Your task to perform on an android device: visit the assistant section in the google photos Image 0: 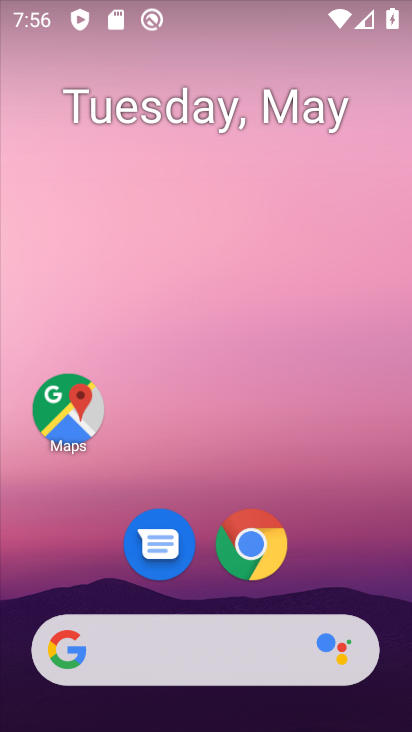
Step 0: drag from (260, 448) to (188, 77)
Your task to perform on an android device: visit the assistant section in the google photos Image 1: 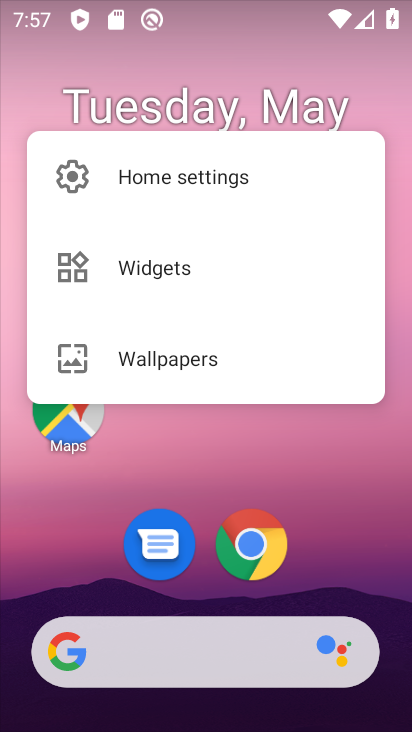
Step 1: click (318, 437)
Your task to perform on an android device: visit the assistant section in the google photos Image 2: 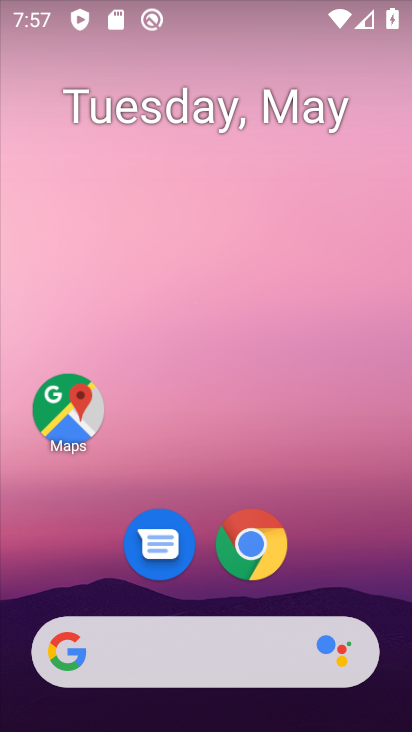
Step 2: drag from (330, 465) to (287, 61)
Your task to perform on an android device: visit the assistant section in the google photos Image 3: 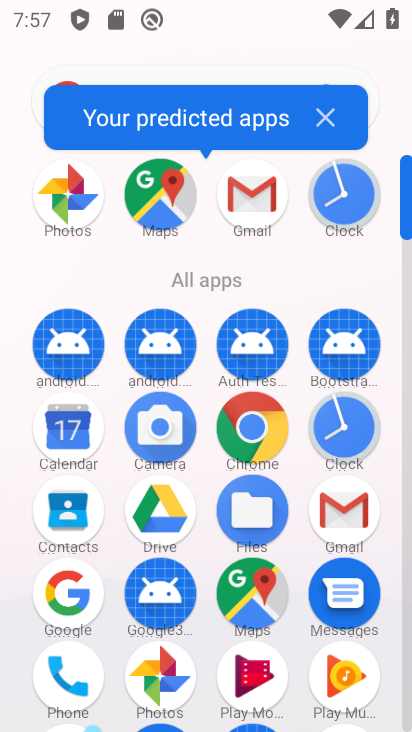
Step 3: click (61, 206)
Your task to perform on an android device: visit the assistant section in the google photos Image 4: 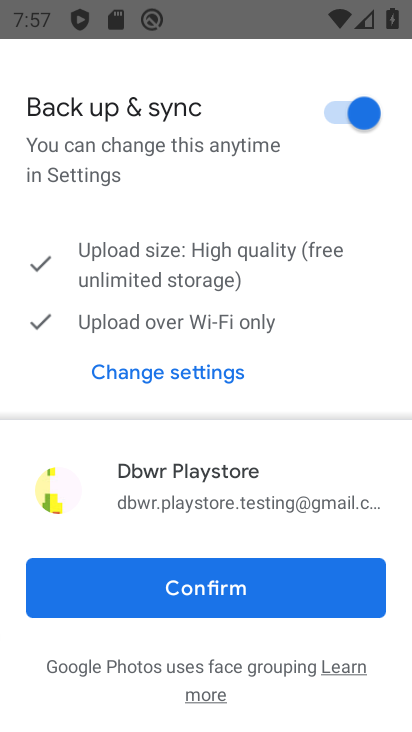
Step 4: click (258, 654)
Your task to perform on an android device: visit the assistant section in the google photos Image 5: 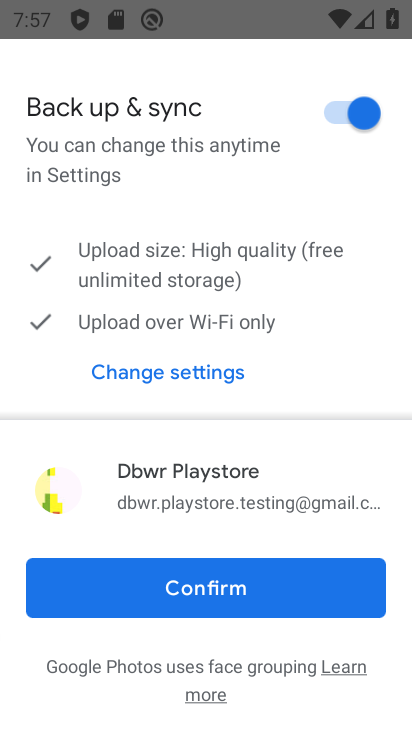
Step 5: click (252, 587)
Your task to perform on an android device: visit the assistant section in the google photos Image 6: 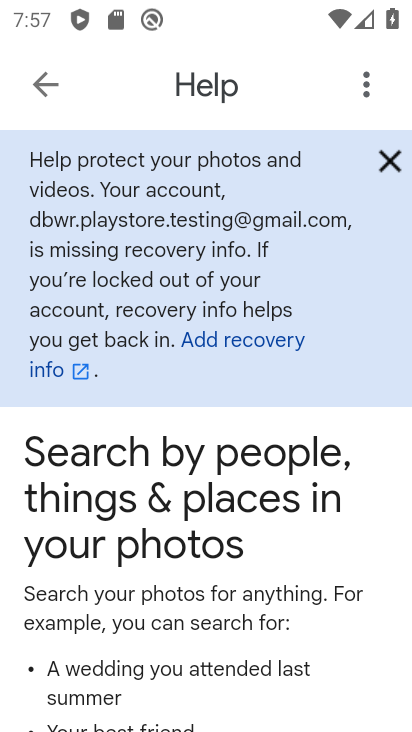
Step 6: click (42, 82)
Your task to perform on an android device: visit the assistant section in the google photos Image 7: 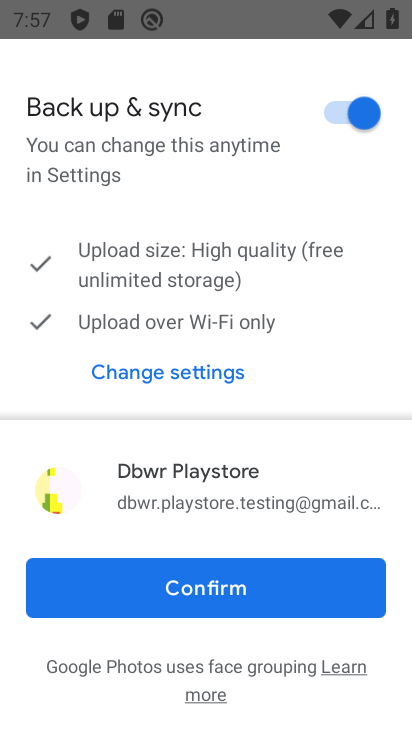
Step 7: click (195, 584)
Your task to perform on an android device: visit the assistant section in the google photos Image 8: 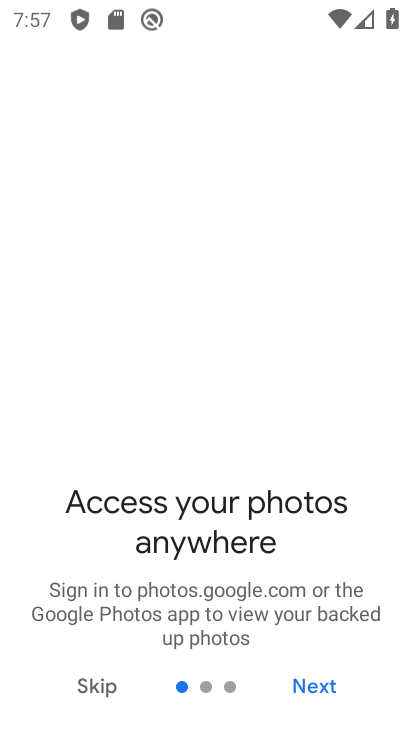
Step 8: click (301, 684)
Your task to perform on an android device: visit the assistant section in the google photos Image 9: 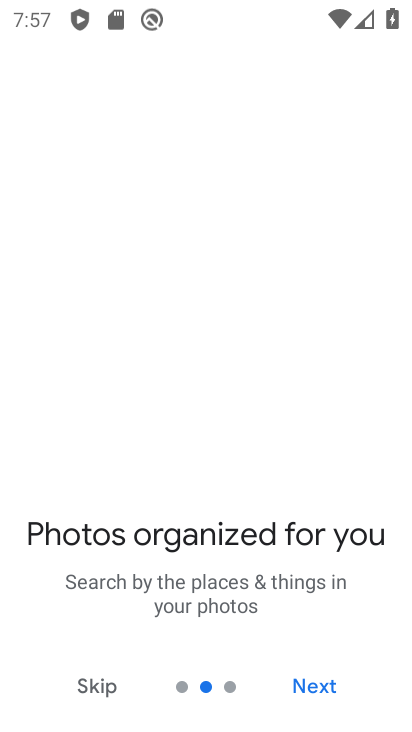
Step 9: click (301, 684)
Your task to perform on an android device: visit the assistant section in the google photos Image 10: 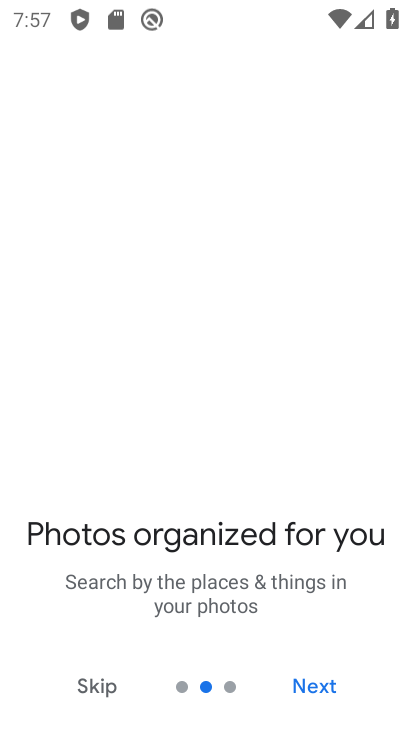
Step 10: click (301, 684)
Your task to perform on an android device: visit the assistant section in the google photos Image 11: 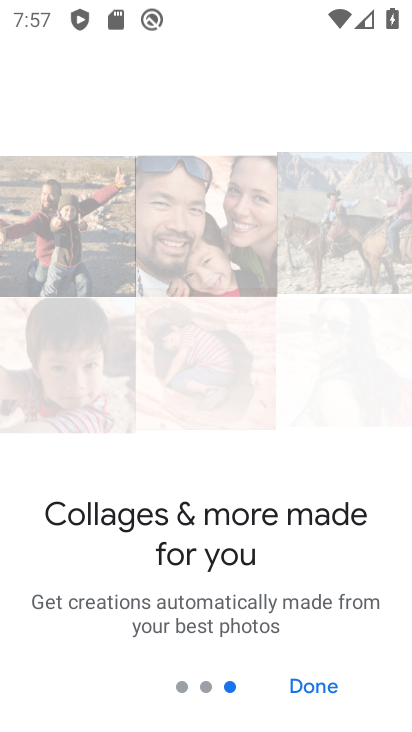
Step 11: click (301, 684)
Your task to perform on an android device: visit the assistant section in the google photos Image 12: 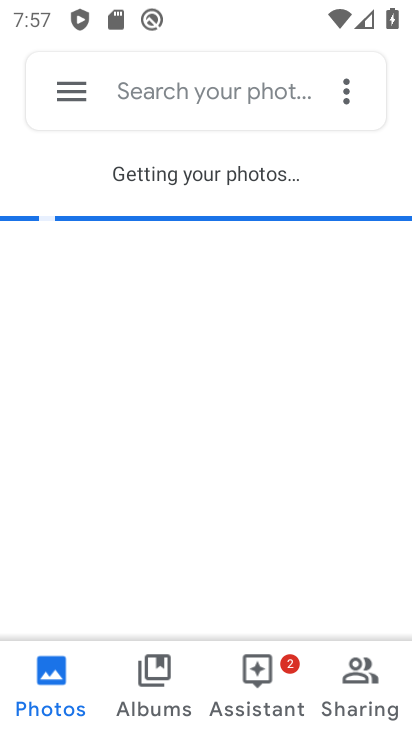
Step 12: click (301, 684)
Your task to perform on an android device: visit the assistant section in the google photos Image 13: 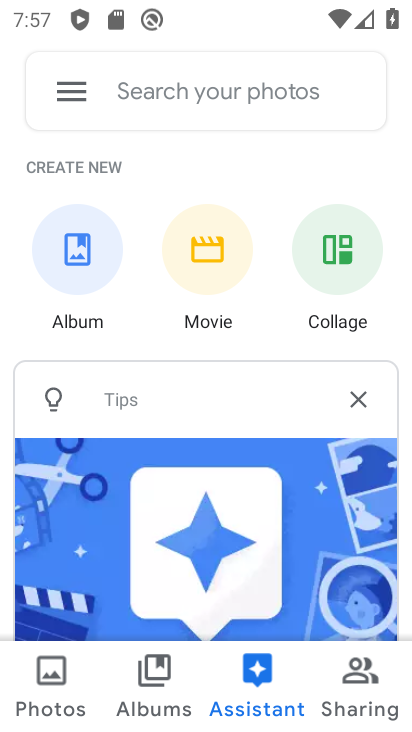
Step 13: task complete